Your task to perform on an android device: change notification settings in the gmail app Image 0: 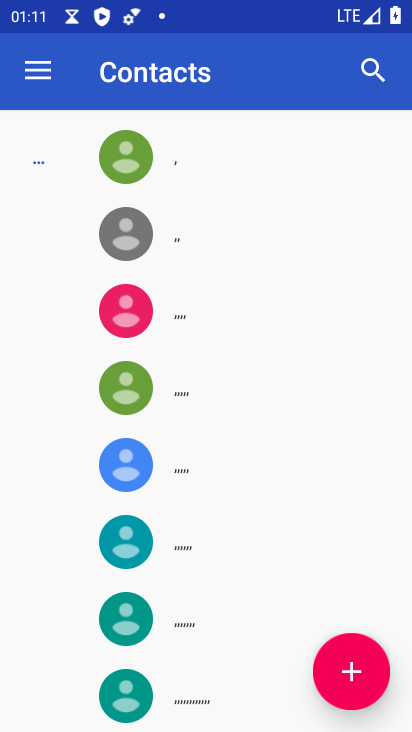
Step 0: press home button
Your task to perform on an android device: change notification settings in the gmail app Image 1: 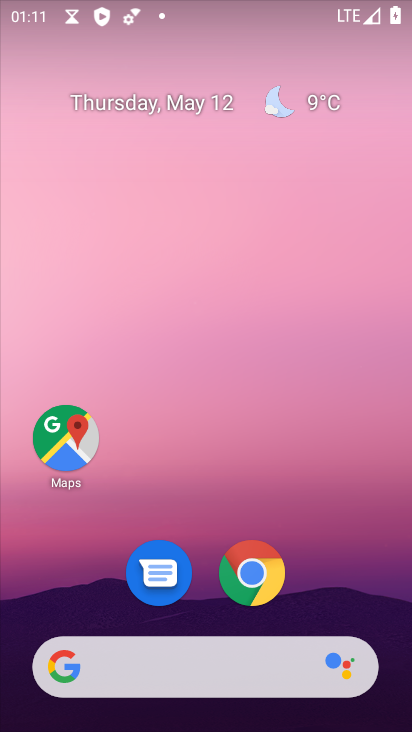
Step 1: drag from (358, 598) to (289, 96)
Your task to perform on an android device: change notification settings in the gmail app Image 2: 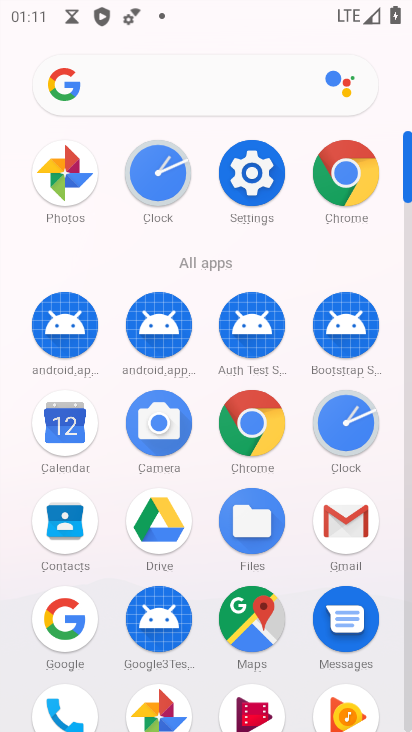
Step 2: click (325, 528)
Your task to perform on an android device: change notification settings in the gmail app Image 3: 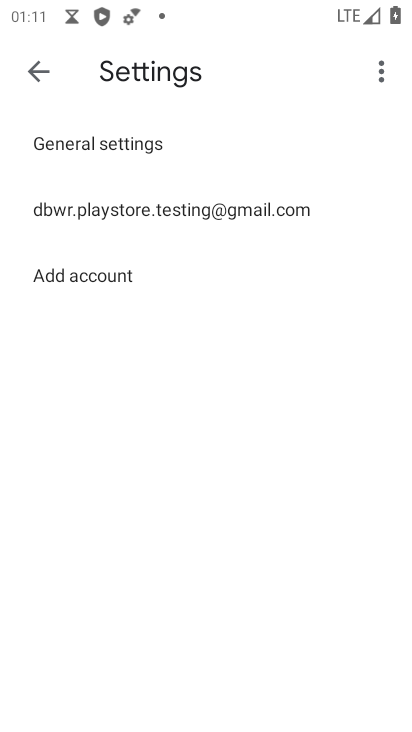
Step 3: click (79, 191)
Your task to perform on an android device: change notification settings in the gmail app Image 4: 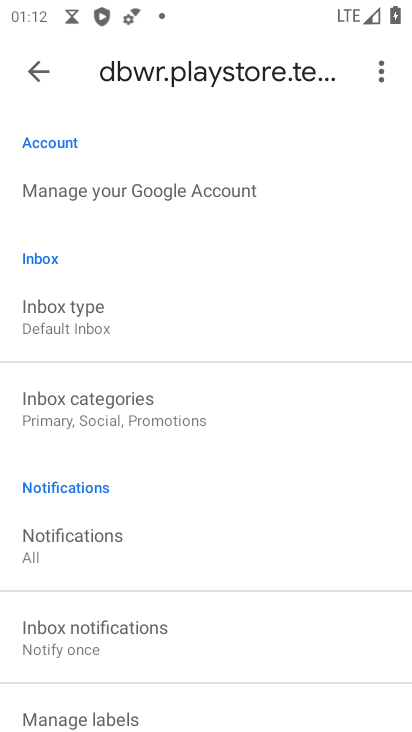
Step 4: drag from (150, 631) to (135, 222)
Your task to perform on an android device: change notification settings in the gmail app Image 5: 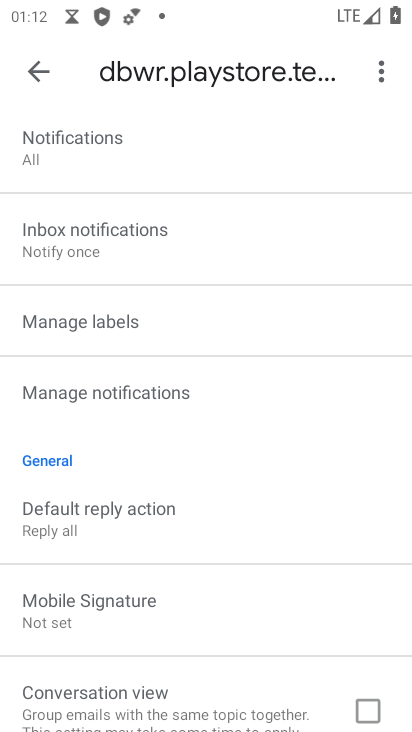
Step 5: click (58, 407)
Your task to perform on an android device: change notification settings in the gmail app Image 6: 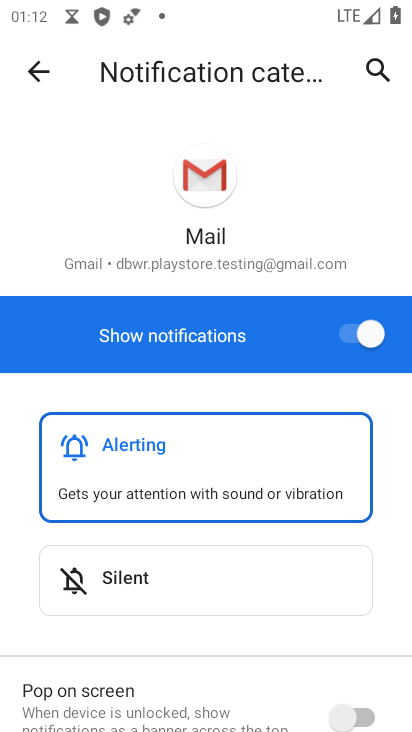
Step 6: click (371, 334)
Your task to perform on an android device: change notification settings in the gmail app Image 7: 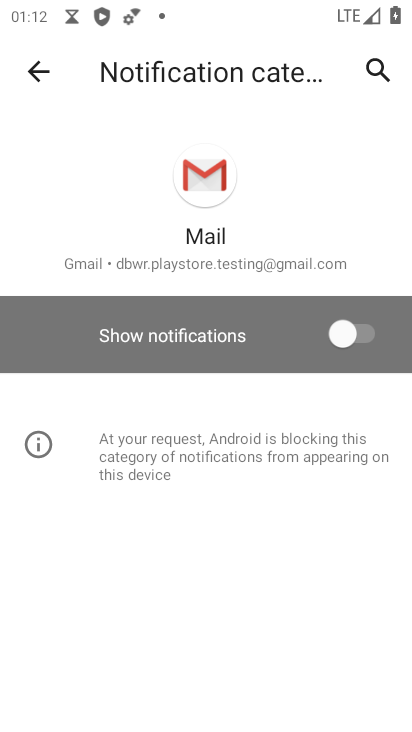
Step 7: task complete